Your task to perform on an android device: Open privacy settings Image 0: 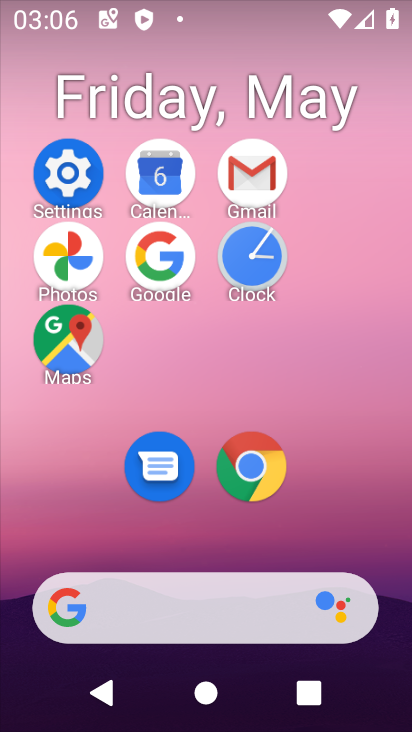
Step 0: click (67, 177)
Your task to perform on an android device: Open privacy settings Image 1: 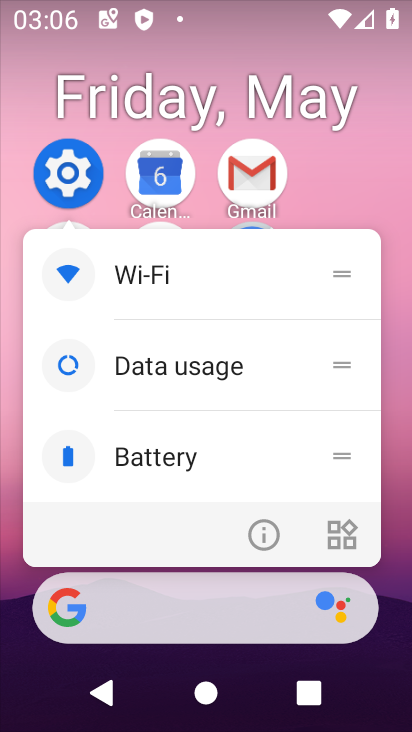
Step 1: click (53, 168)
Your task to perform on an android device: Open privacy settings Image 2: 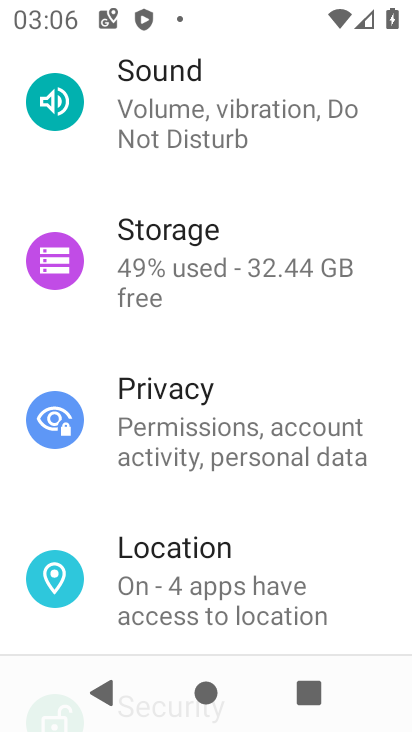
Step 2: click (187, 394)
Your task to perform on an android device: Open privacy settings Image 3: 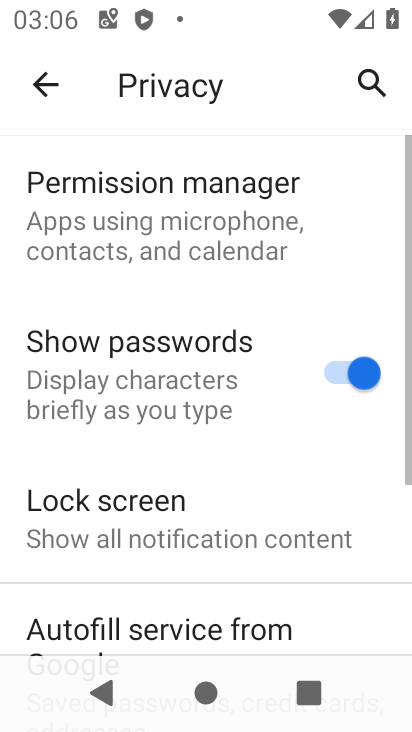
Step 3: task complete